Your task to perform on an android device: toggle translation in the chrome app Image 0: 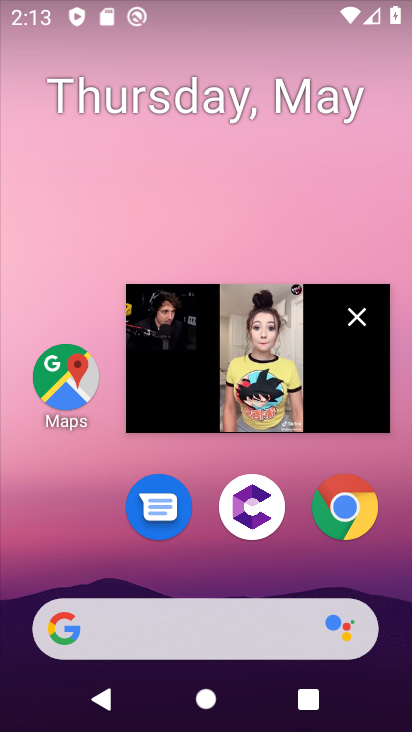
Step 0: press home button
Your task to perform on an android device: toggle translation in the chrome app Image 1: 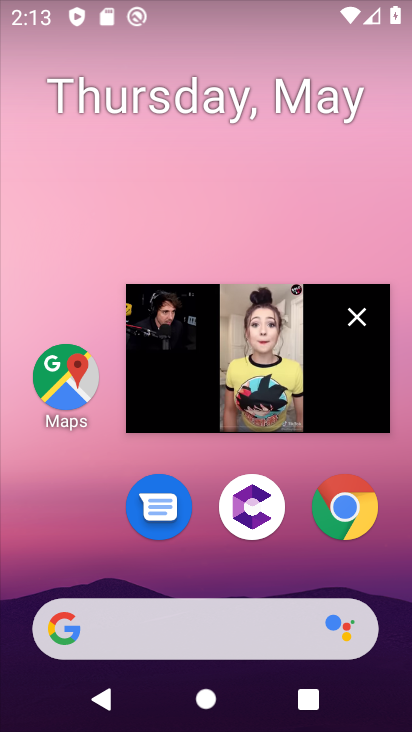
Step 1: click (359, 318)
Your task to perform on an android device: toggle translation in the chrome app Image 2: 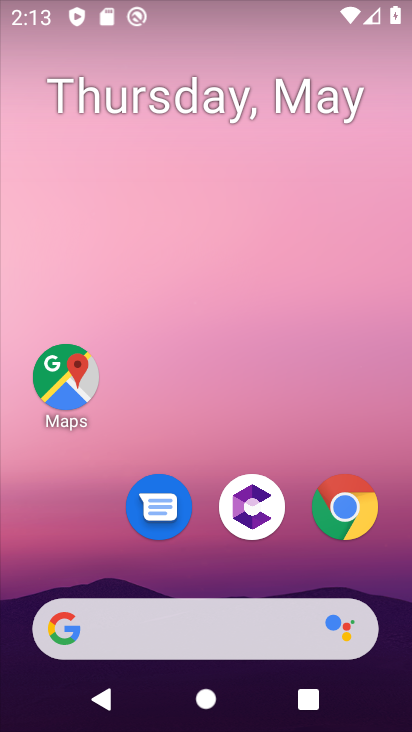
Step 2: click (347, 505)
Your task to perform on an android device: toggle translation in the chrome app Image 3: 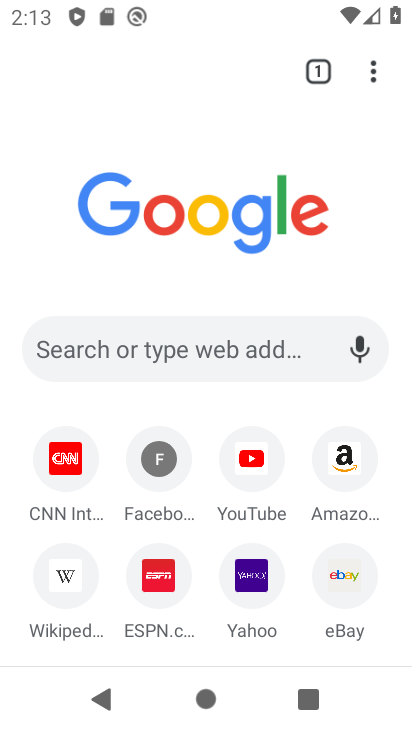
Step 3: drag from (373, 75) to (154, 500)
Your task to perform on an android device: toggle translation in the chrome app Image 4: 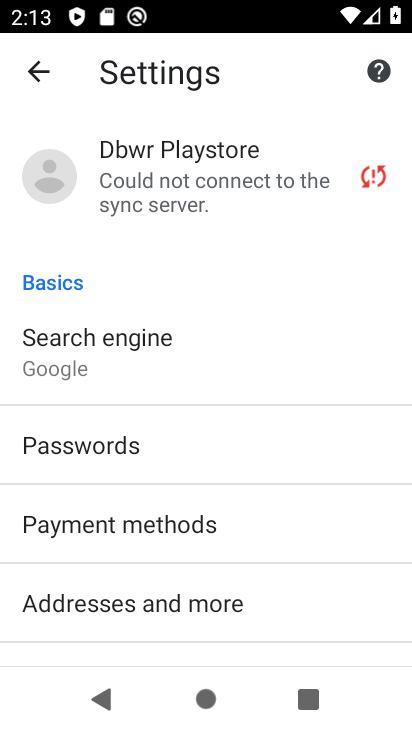
Step 4: drag from (273, 558) to (275, 260)
Your task to perform on an android device: toggle translation in the chrome app Image 5: 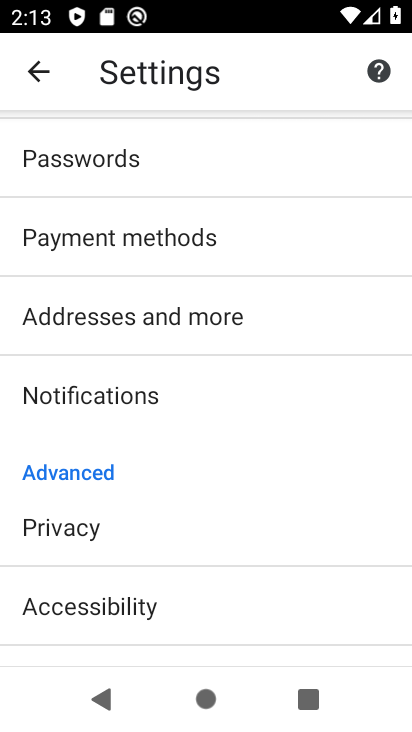
Step 5: drag from (217, 607) to (193, 244)
Your task to perform on an android device: toggle translation in the chrome app Image 6: 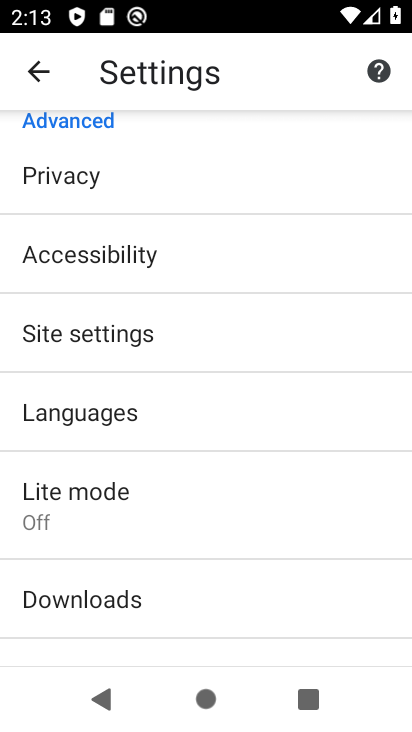
Step 6: click (72, 419)
Your task to perform on an android device: toggle translation in the chrome app Image 7: 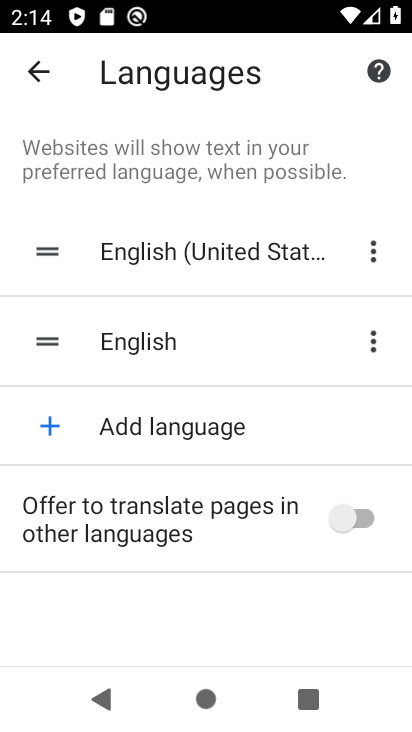
Step 7: click (360, 520)
Your task to perform on an android device: toggle translation in the chrome app Image 8: 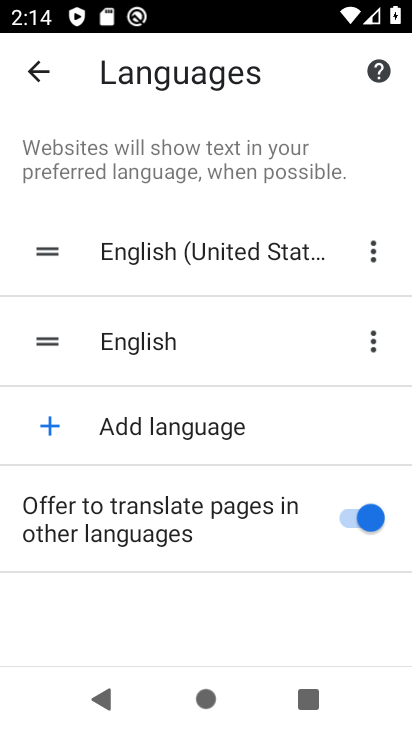
Step 8: task complete